Your task to perform on an android device: Clear the shopping cart on target. Image 0: 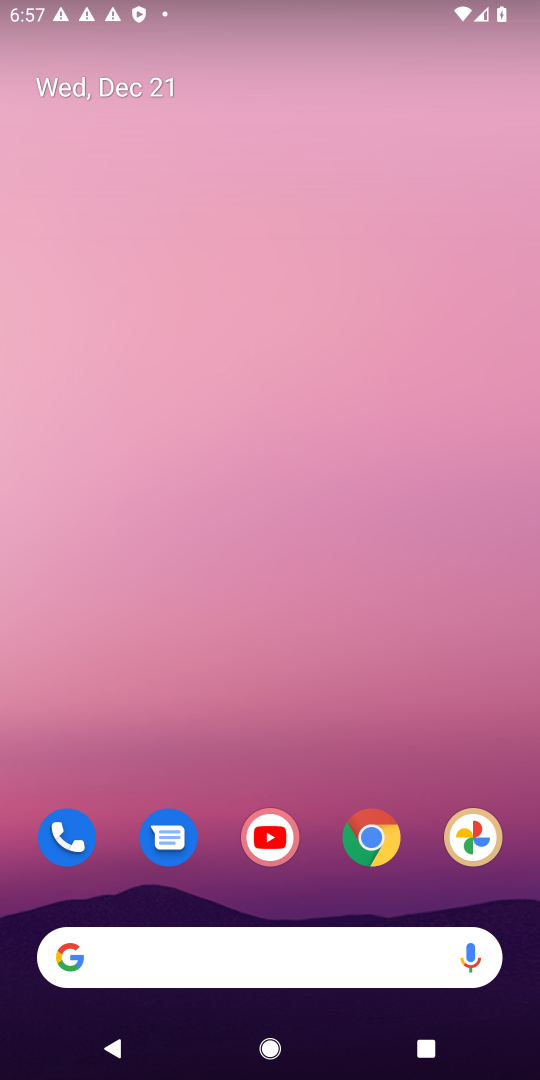
Step 0: drag from (246, 755) to (236, 233)
Your task to perform on an android device: Clear the shopping cart on target. Image 1: 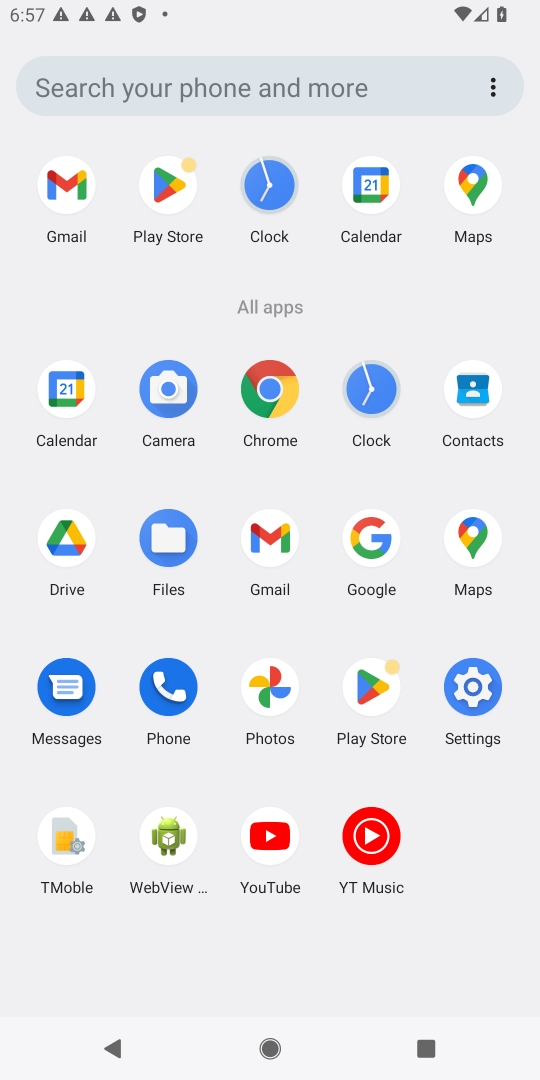
Step 1: click (378, 534)
Your task to perform on an android device: Clear the shopping cart on target. Image 2: 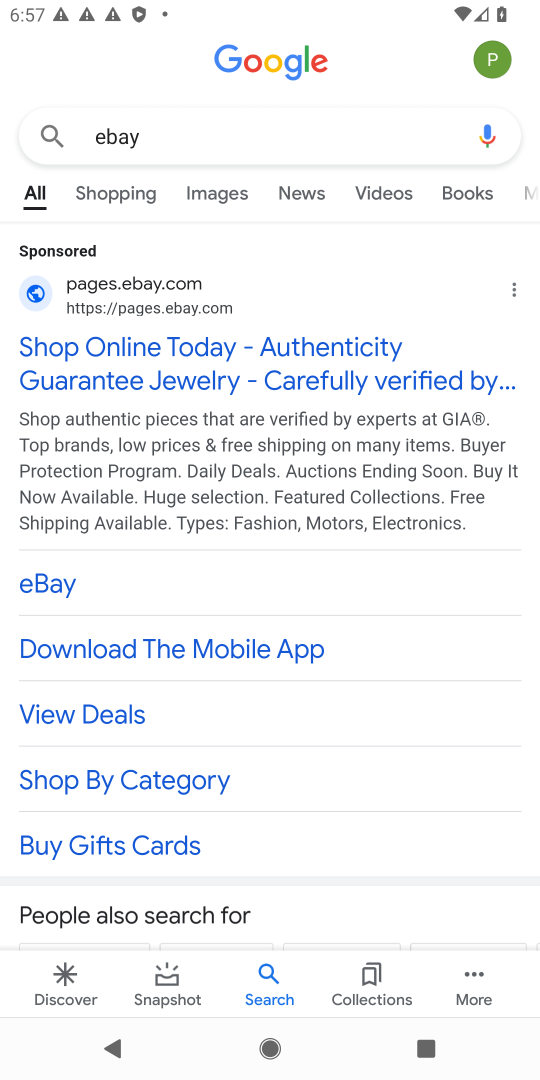
Step 2: click (134, 143)
Your task to perform on an android device: Clear the shopping cart on target. Image 3: 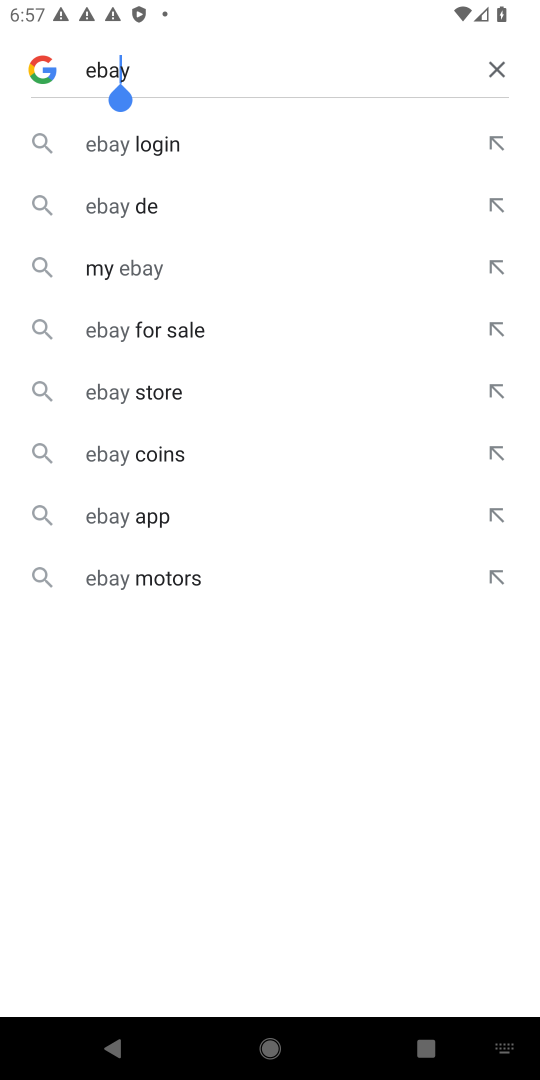
Step 3: click (495, 73)
Your task to perform on an android device: Clear the shopping cart on target. Image 4: 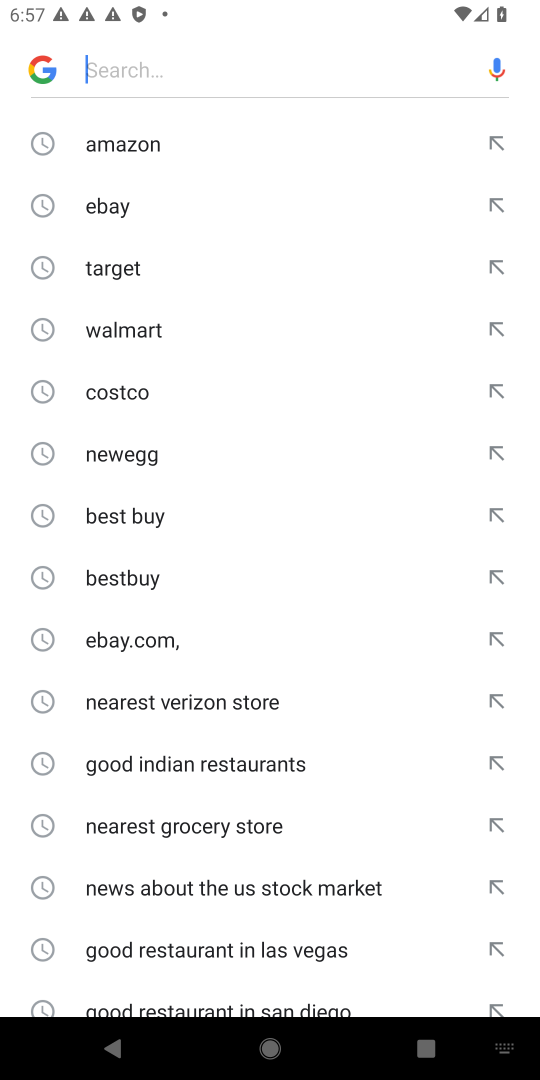
Step 4: click (123, 269)
Your task to perform on an android device: Clear the shopping cart on target. Image 5: 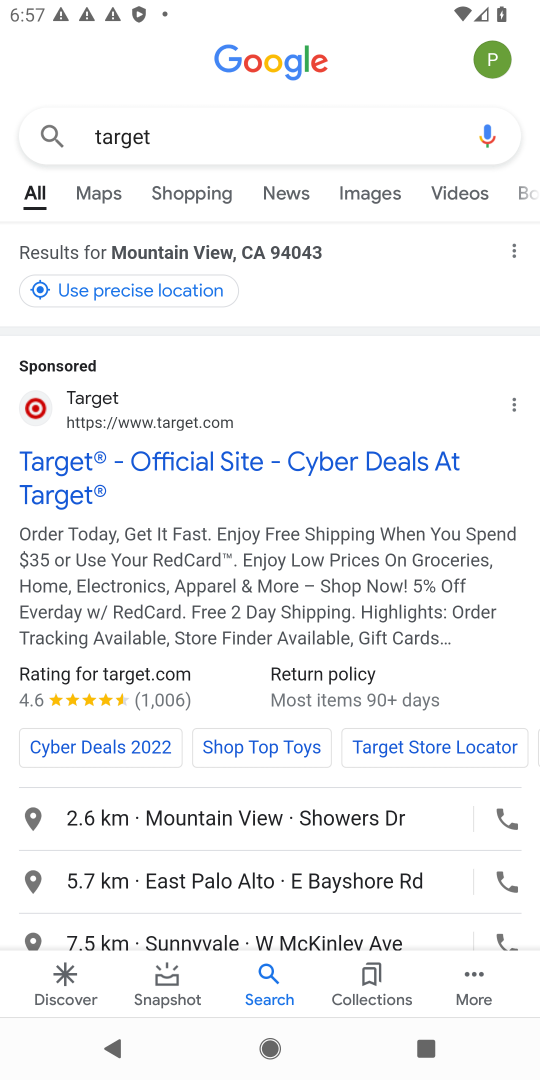
Step 5: click (128, 460)
Your task to perform on an android device: Clear the shopping cart on target. Image 6: 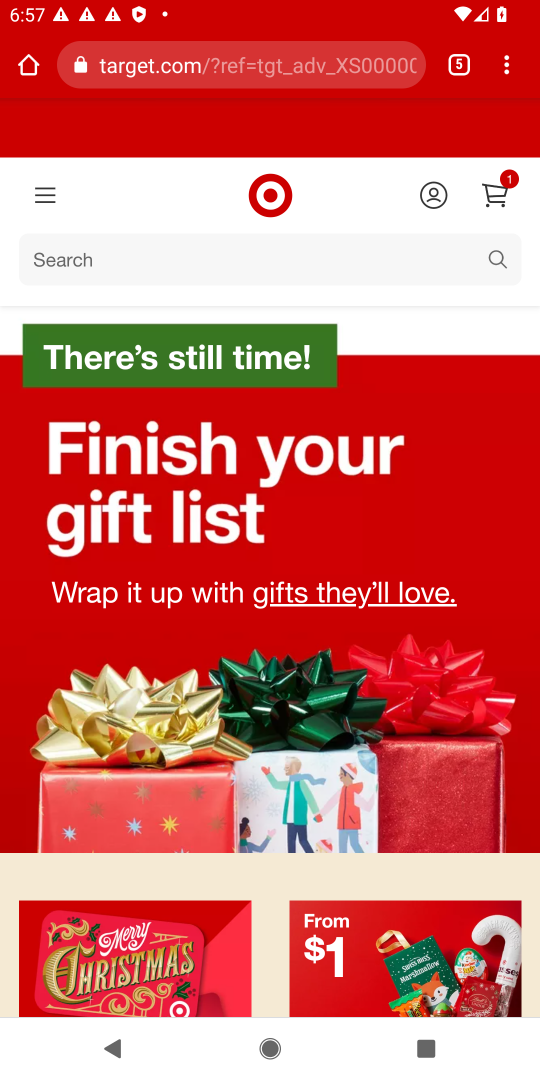
Step 6: click (495, 196)
Your task to perform on an android device: Clear the shopping cart on target. Image 7: 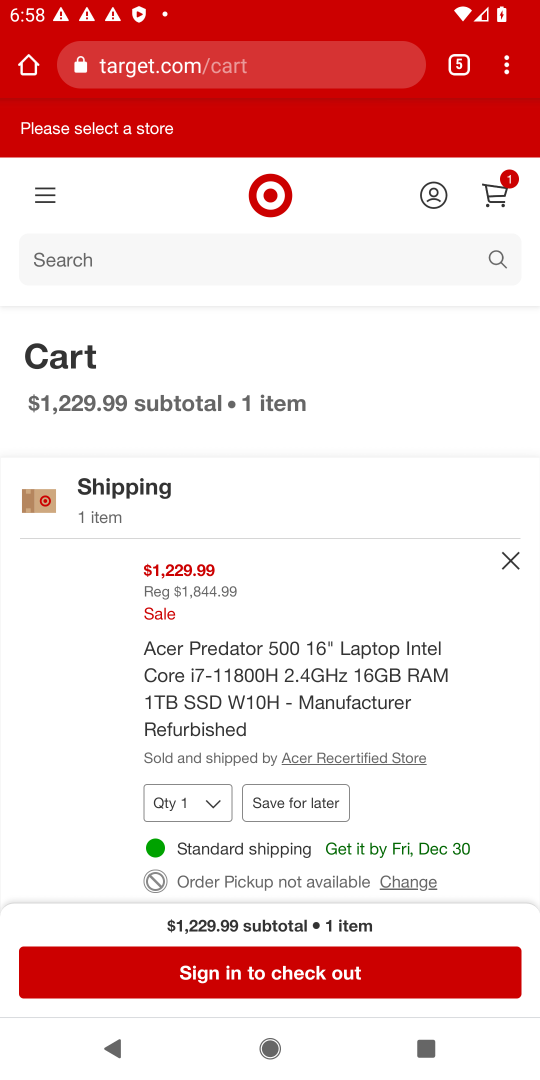
Step 7: drag from (83, 692) to (83, 383)
Your task to perform on an android device: Clear the shopping cart on target. Image 8: 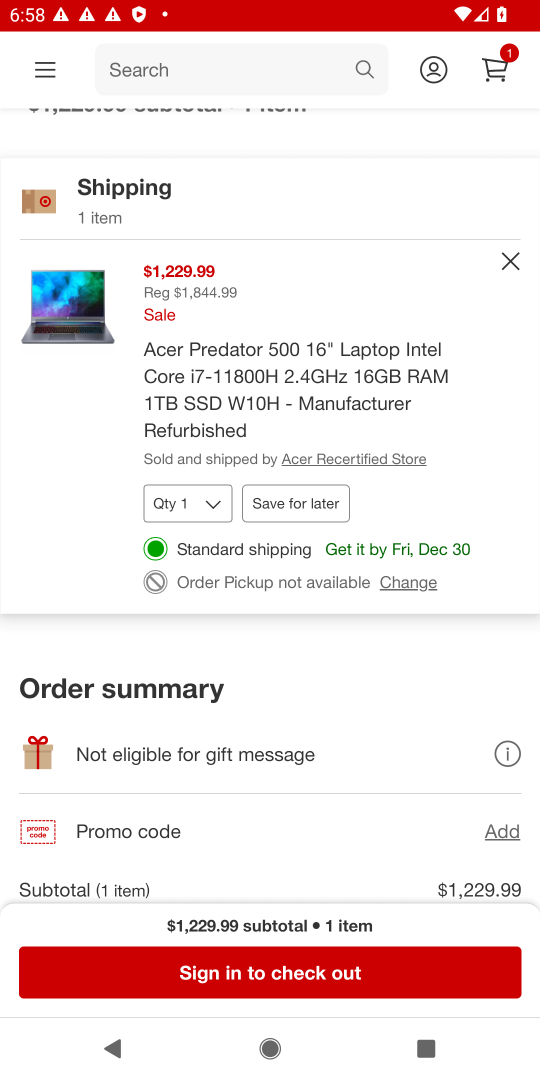
Step 8: click (512, 262)
Your task to perform on an android device: Clear the shopping cart on target. Image 9: 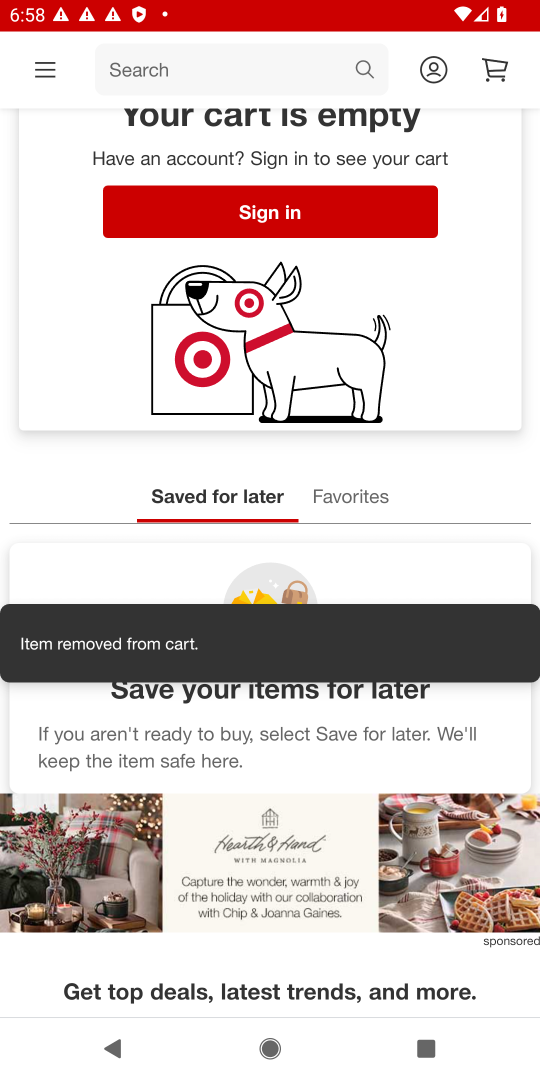
Step 9: task complete